Your task to perform on an android device: View the shopping cart on walmart. Search for acer predator on walmart, select the first entry, and add it to the cart. Image 0: 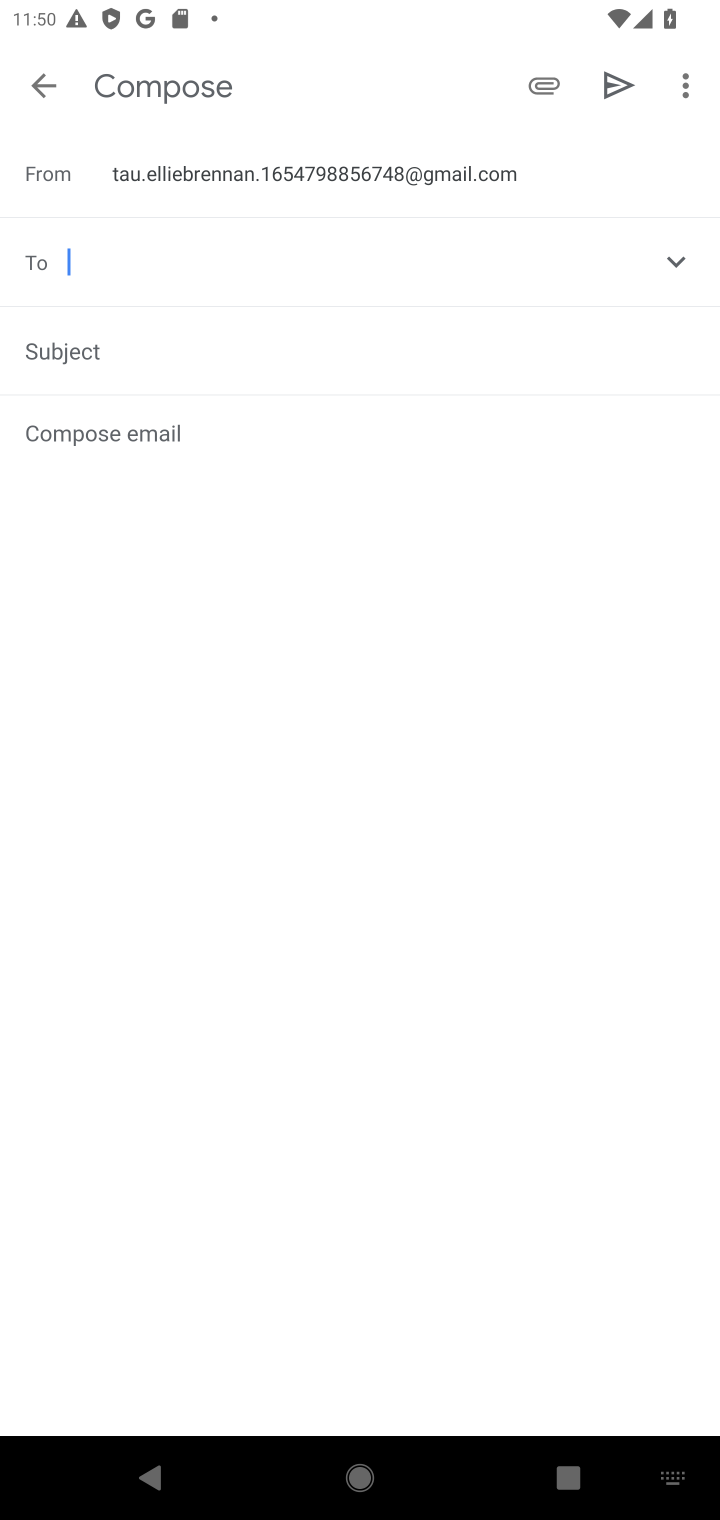
Step 0: press home button
Your task to perform on an android device: View the shopping cart on walmart. Search for acer predator on walmart, select the first entry, and add it to the cart. Image 1: 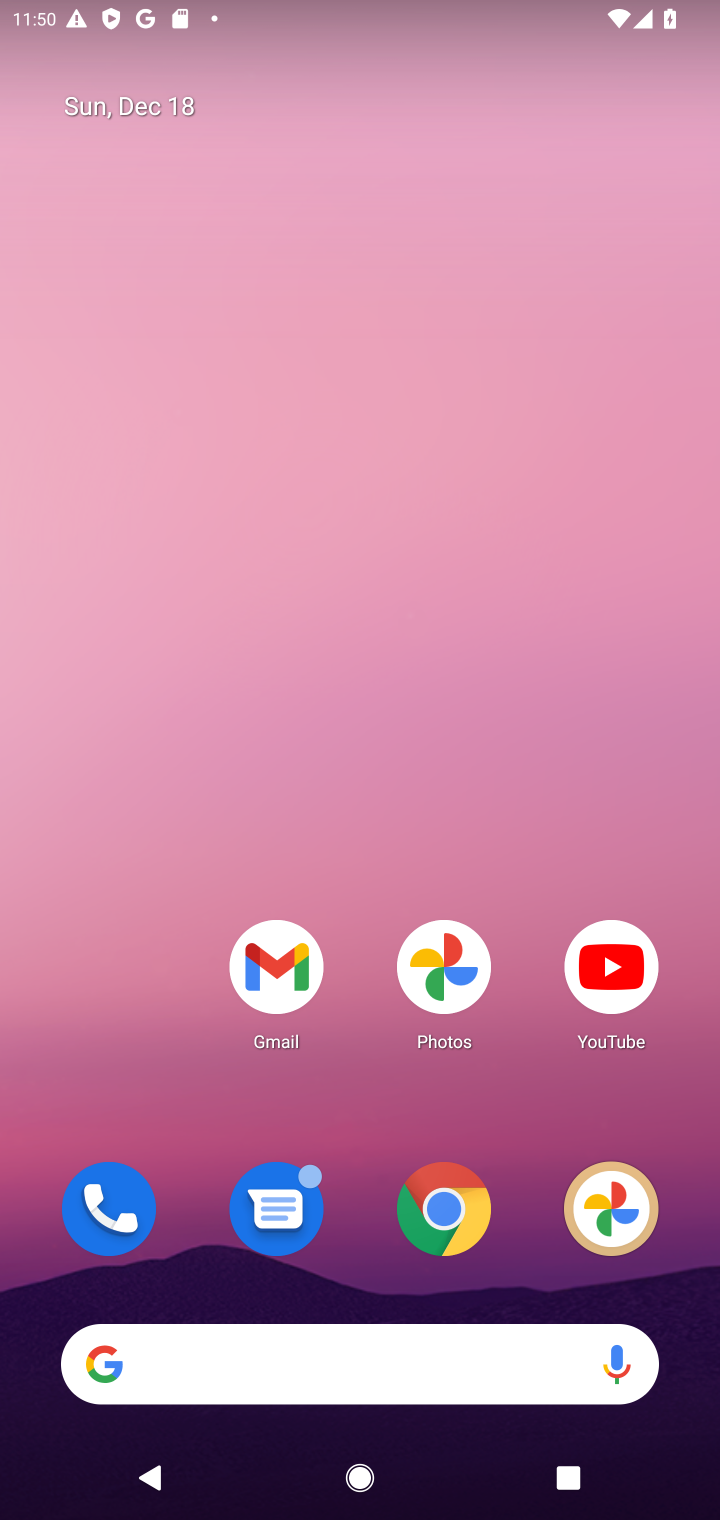
Step 1: click (430, 1201)
Your task to perform on an android device: View the shopping cart on walmart. Search for acer predator on walmart, select the first entry, and add it to the cart. Image 2: 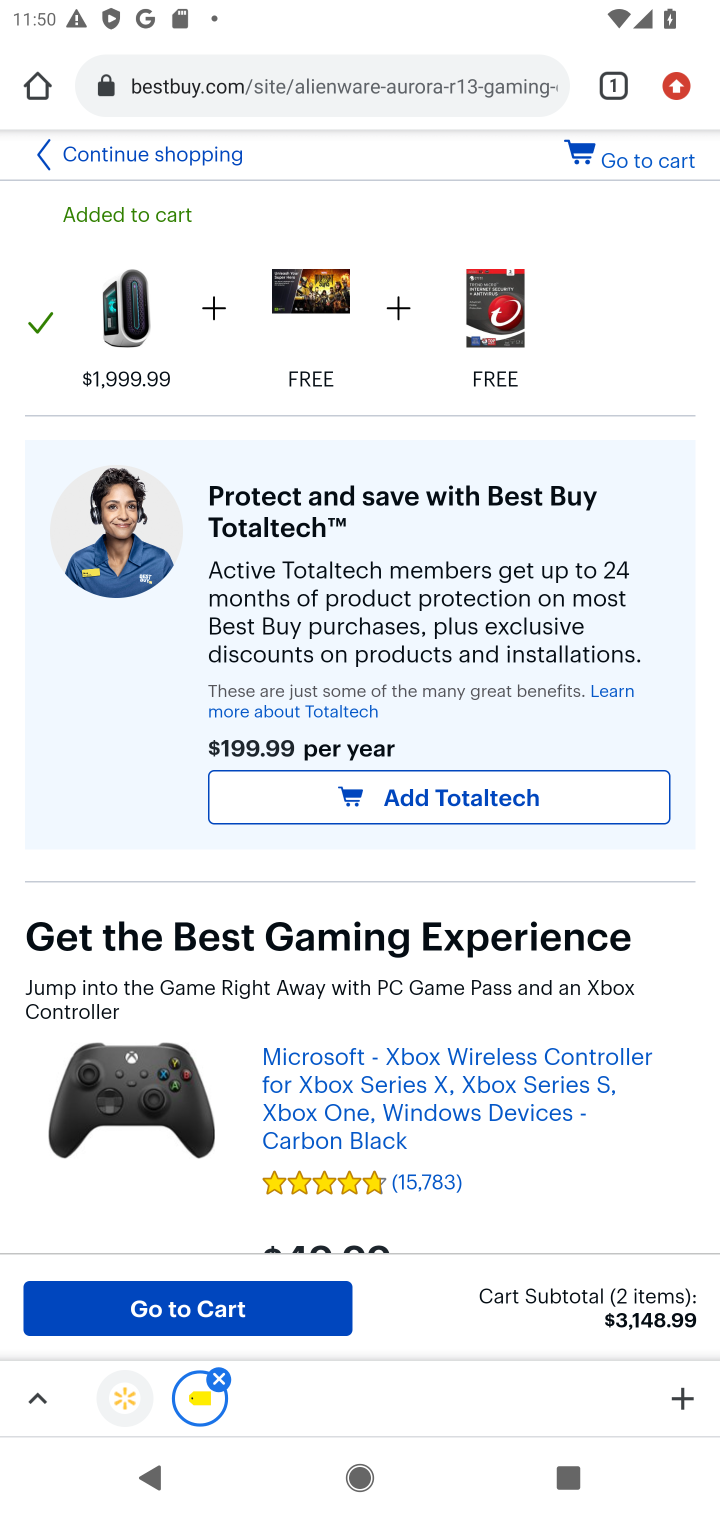
Step 2: click (245, 73)
Your task to perform on an android device: View the shopping cart on walmart. Search for acer predator on walmart, select the first entry, and add it to the cart. Image 3: 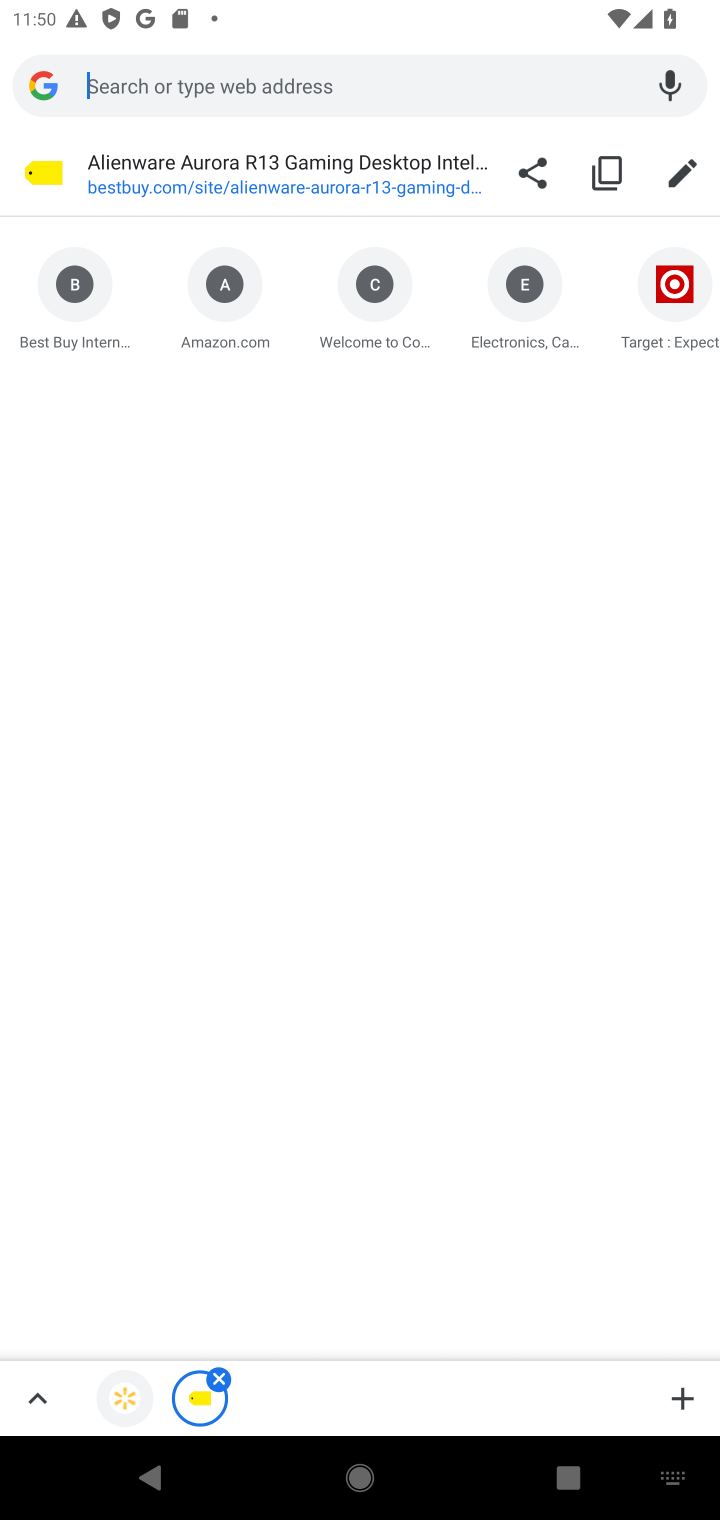
Step 3: type "WALMART"
Your task to perform on an android device: View the shopping cart on walmart. Search for acer predator on walmart, select the first entry, and add it to the cart. Image 4: 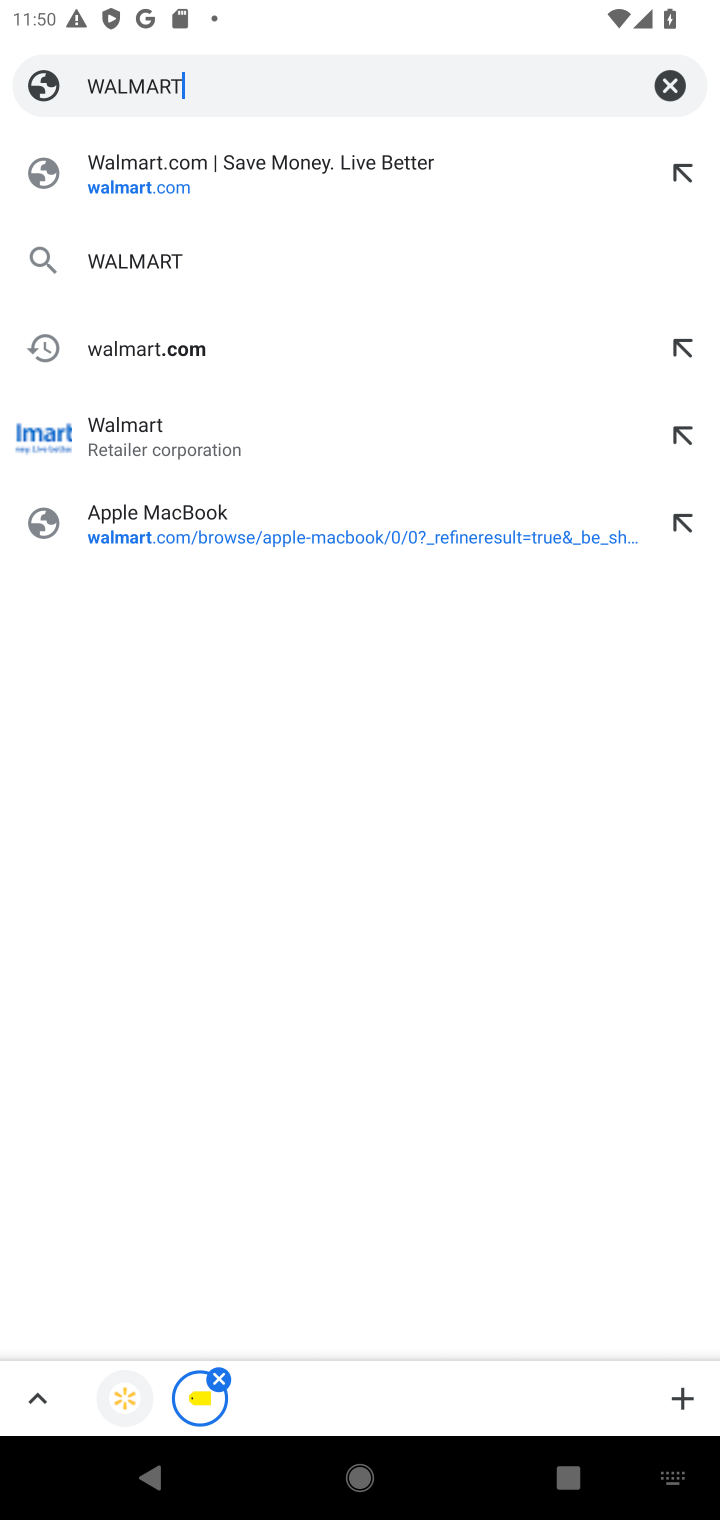
Step 4: click (140, 183)
Your task to perform on an android device: View the shopping cart on walmart. Search for acer predator on walmart, select the first entry, and add it to the cart. Image 5: 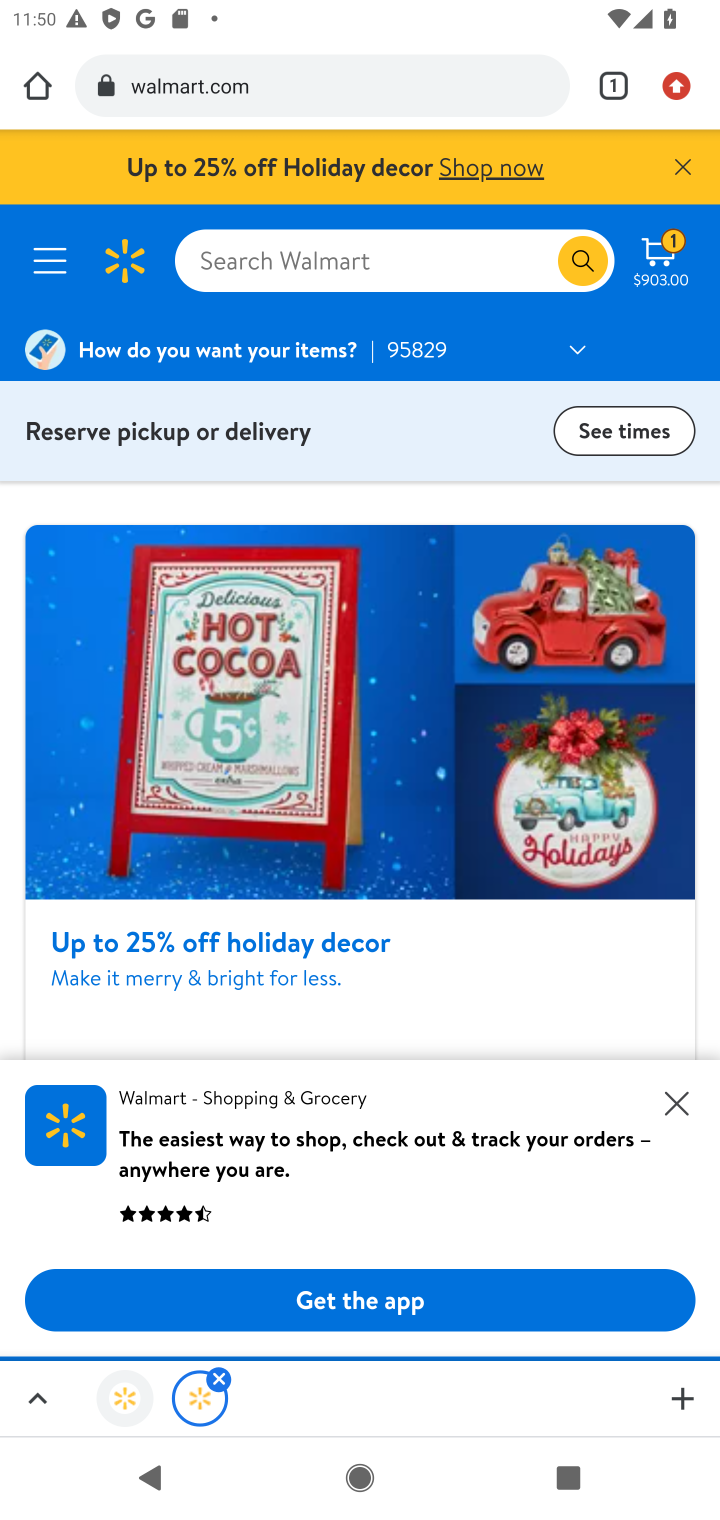
Step 5: click (413, 259)
Your task to perform on an android device: View the shopping cart on walmart. Search for acer predator on walmart, select the first entry, and add it to the cart. Image 6: 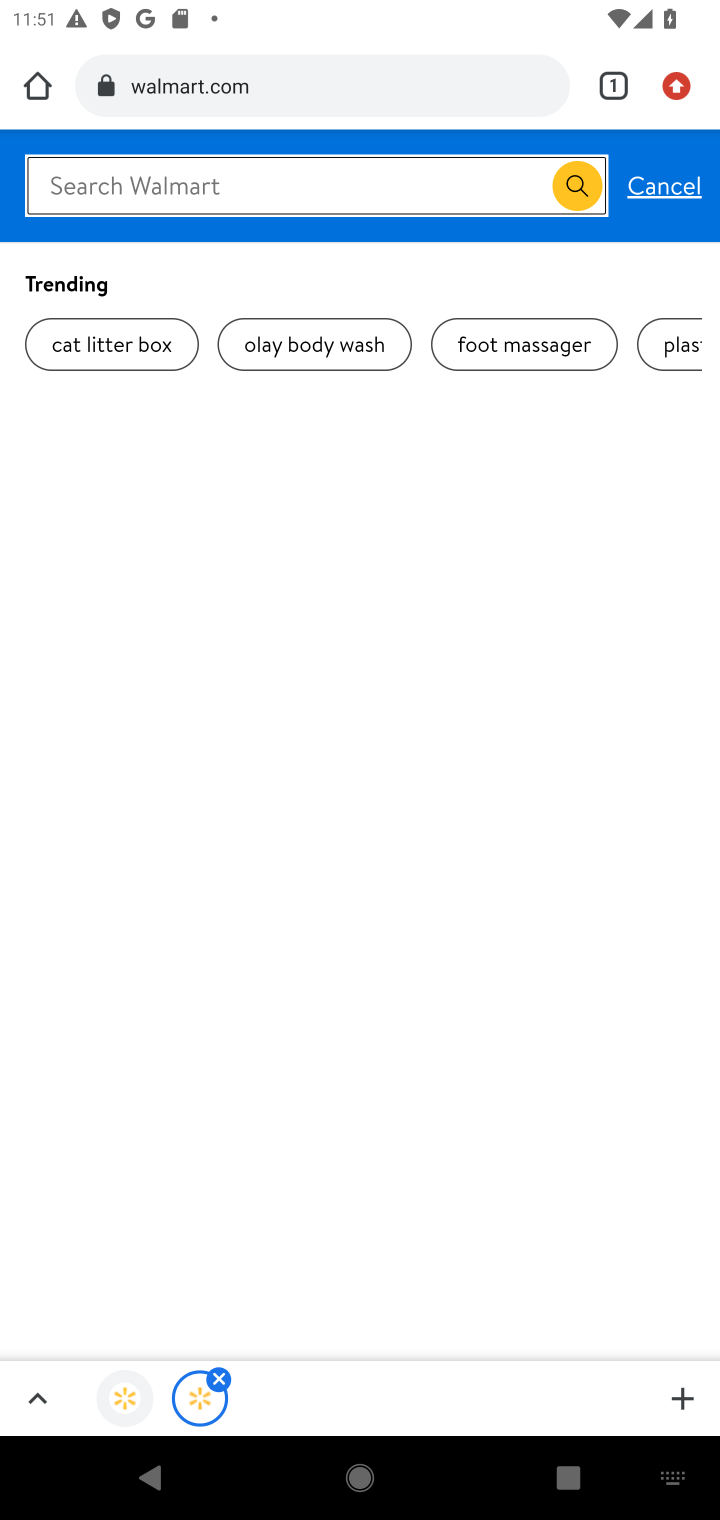
Step 6: type "ACER PREDATOR"
Your task to perform on an android device: View the shopping cart on walmart. Search for acer predator on walmart, select the first entry, and add it to the cart. Image 7: 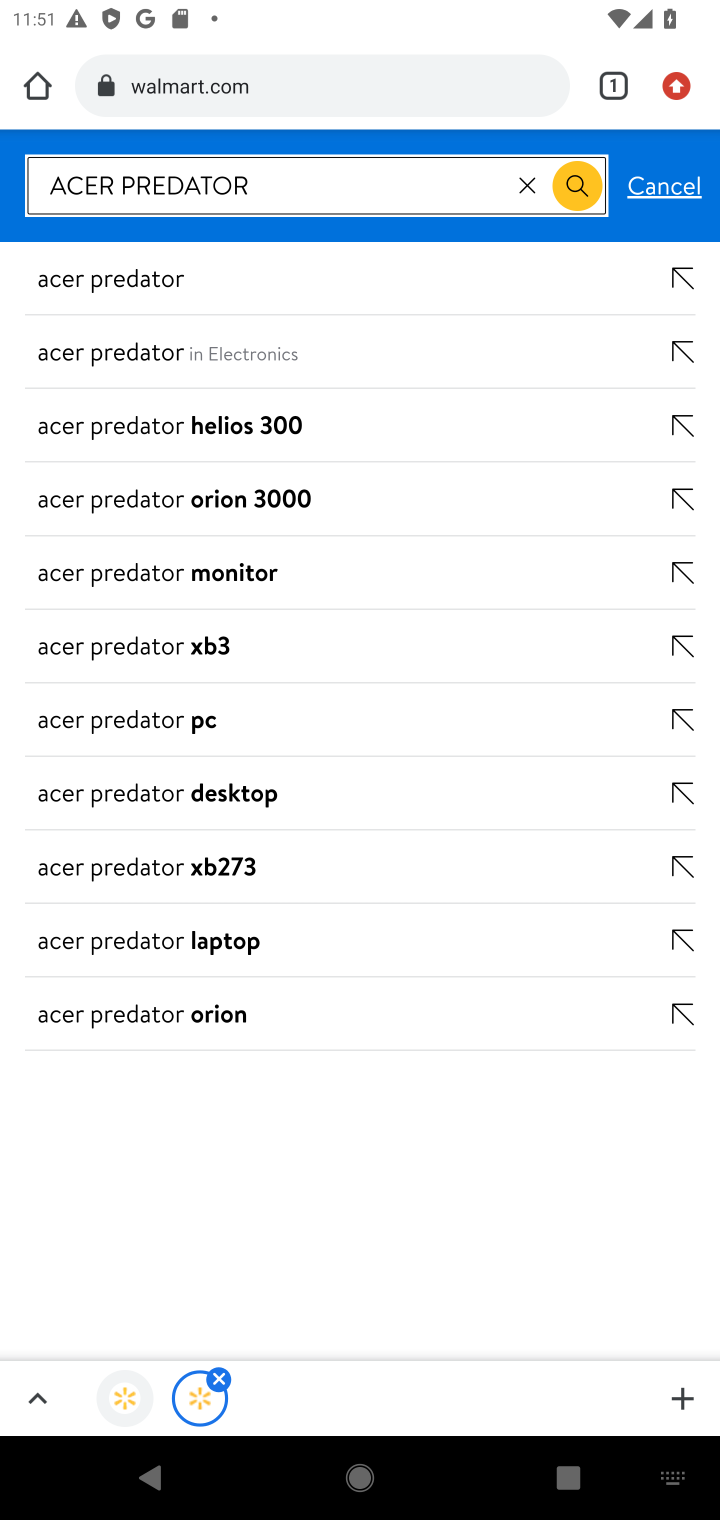
Step 7: click (207, 353)
Your task to perform on an android device: View the shopping cart on walmart. Search for acer predator on walmart, select the first entry, and add it to the cart. Image 8: 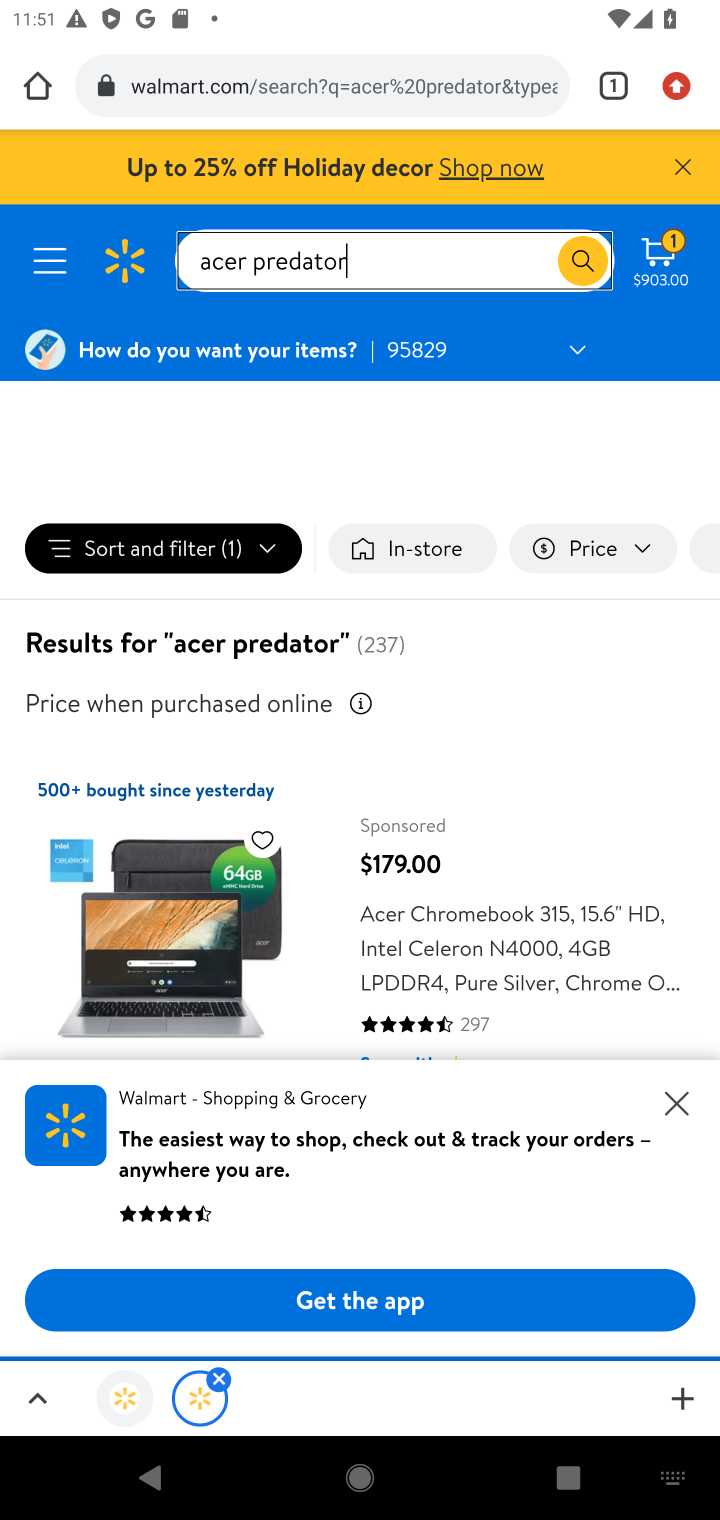
Step 8: click (668, 1105)
Your task to perform on an android device: View the shopping cart on walmart. Search for acer predator on walmart, select the first entry, and add it to the cart. Image 9: 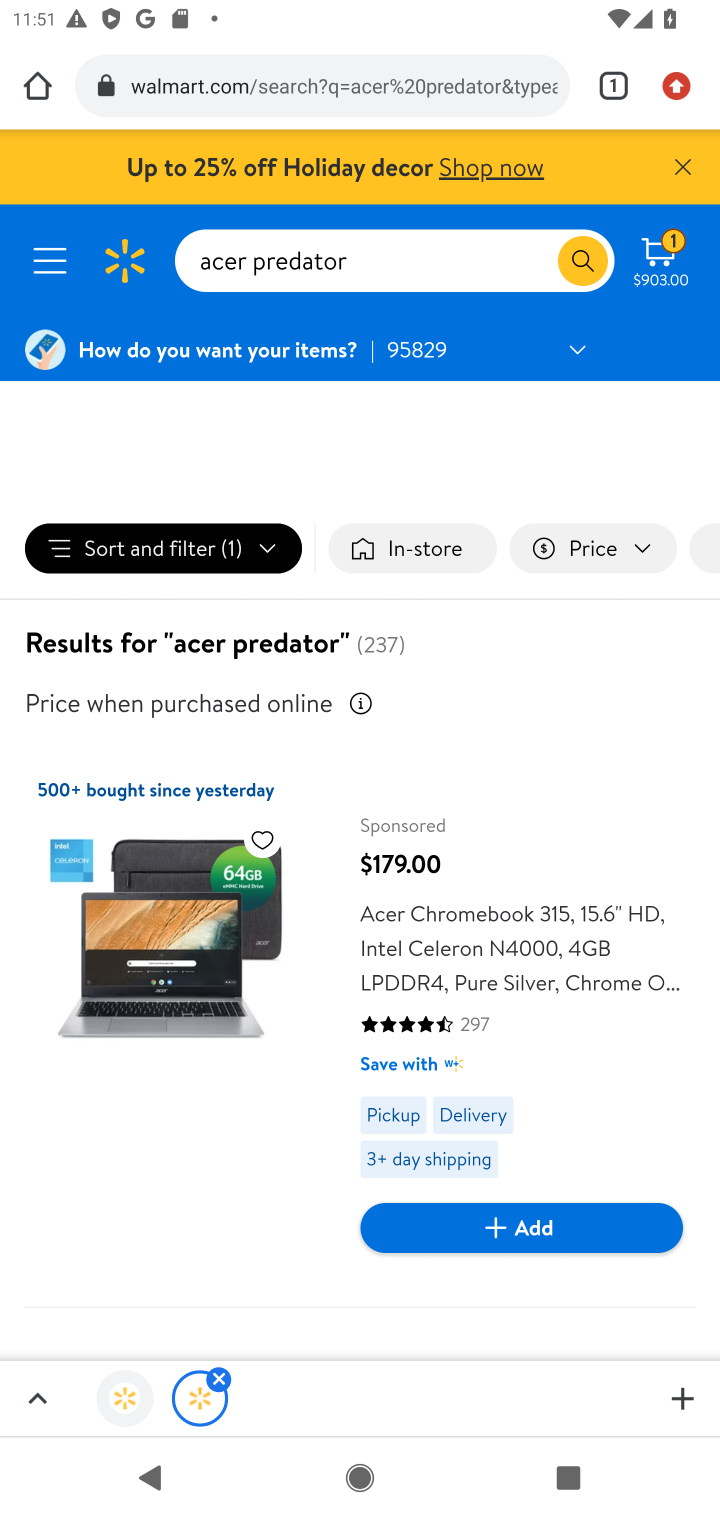
Step 9: click (524, 1231)
Your task to perform on an android device: View the shopping cart on walmart. Search for acer predator on walmart, select the first entry, and add it to the cart. Image 10: 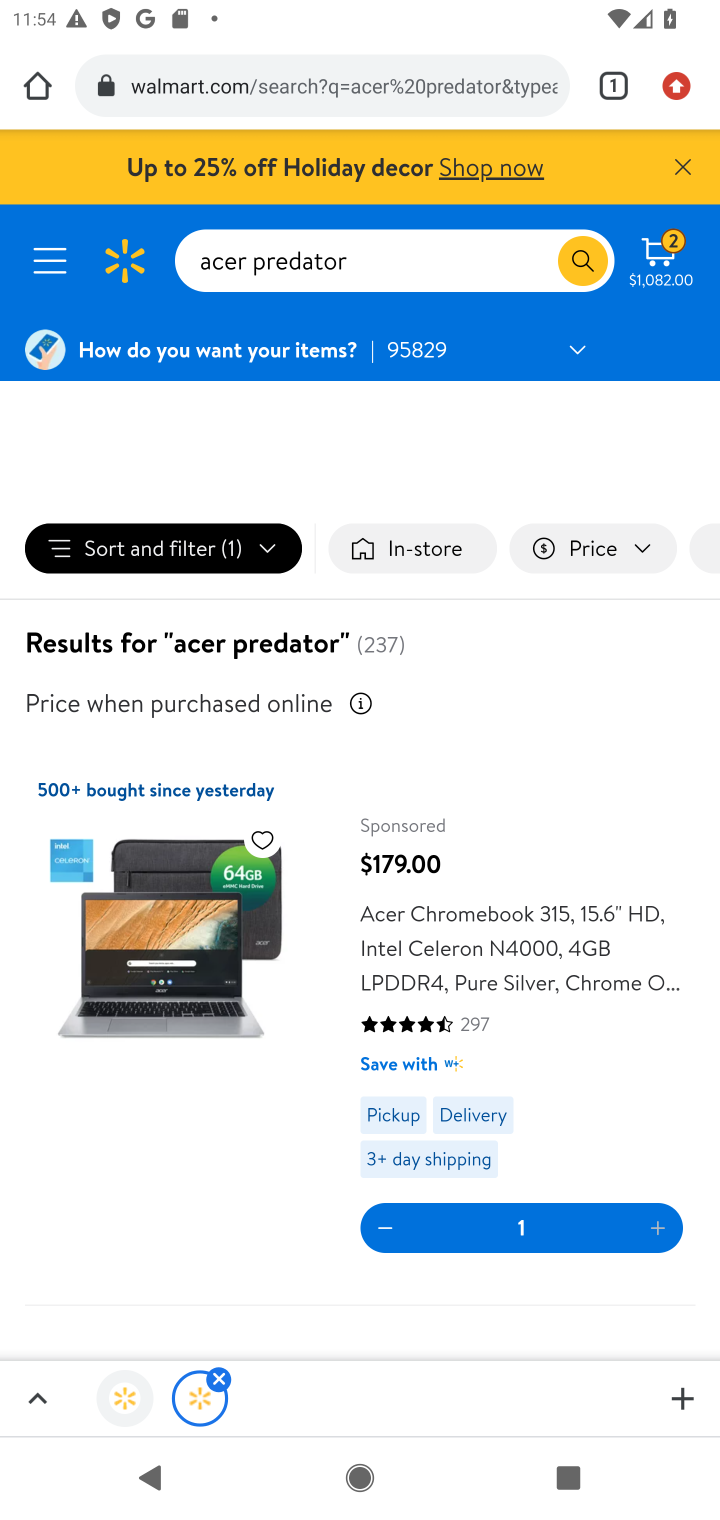
Step 10: task complete